Your task to perform on an android device: see tabs open on other devices in the chrome app Image 0: 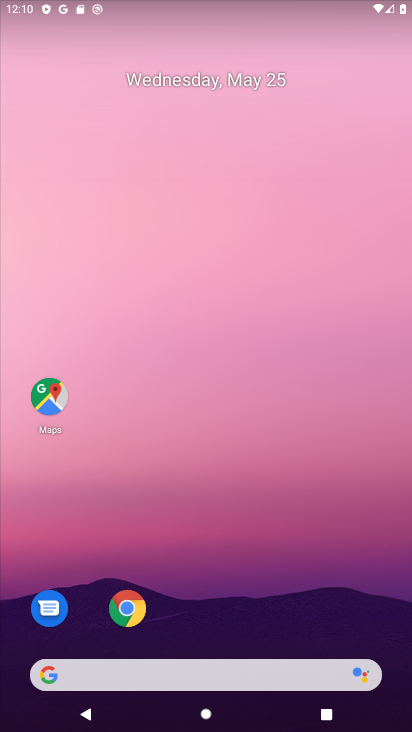
Step 0: click (127, 603)
Your task to perform on an android device: see tabs open on other devices in the chrome app Image 1: 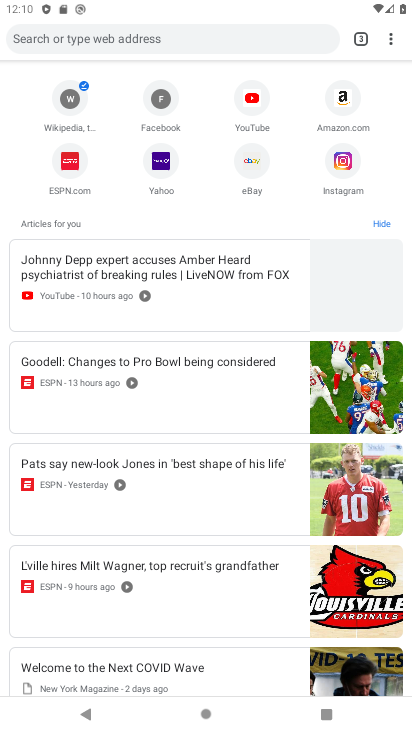
Step 1: click (396, 41)
Your task to perform on an android device: see tabs open on other devices in the chrome app Image 2: 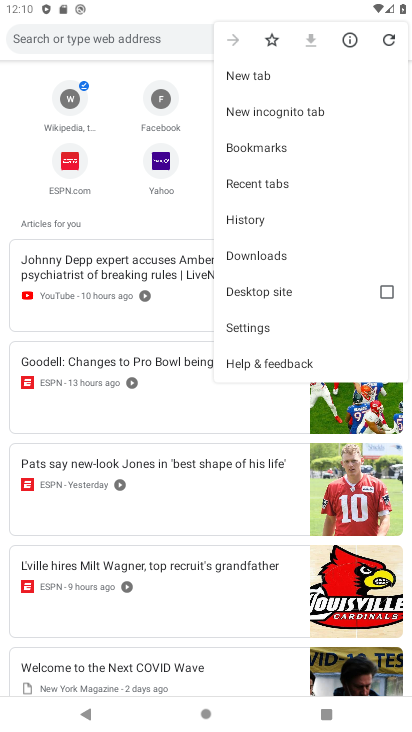
Step 2: click (309, 175)
Your task to perform on an android device: see tabs open on other devices in the chrome app Image 3: 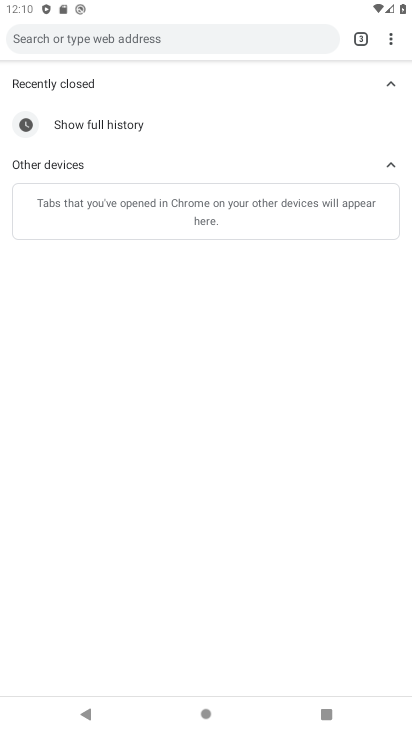
Step 3: task complete